Your task to perform on an android device: Go to eBay Image 0: 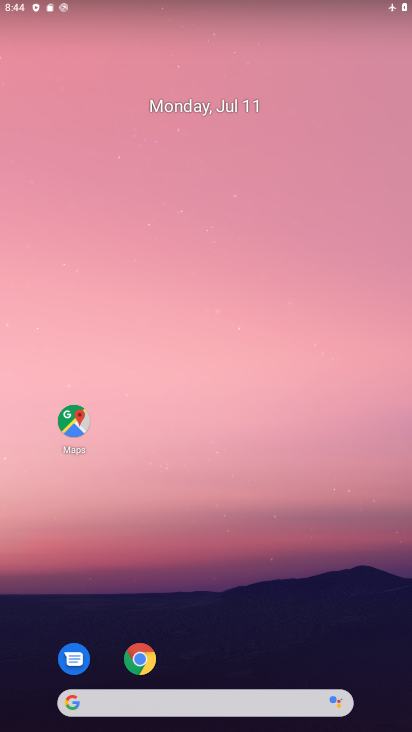
Step 0: click (143, 654)
Your task to perform on an android device: Go to eBay Image 1: 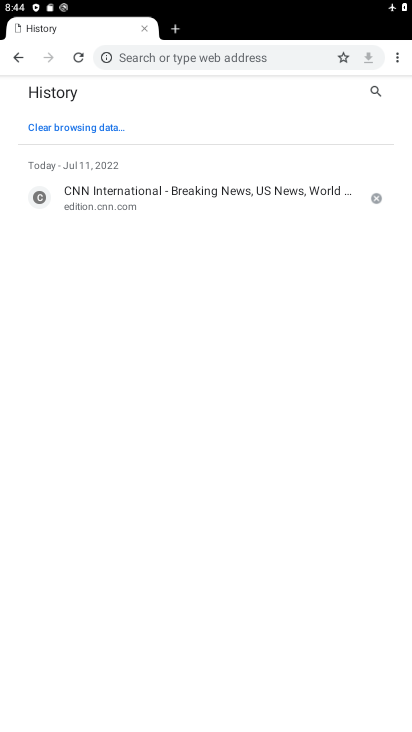
Step 1: click (178, 30)
Your task to perform on an android device: Go to eBay Image 2: 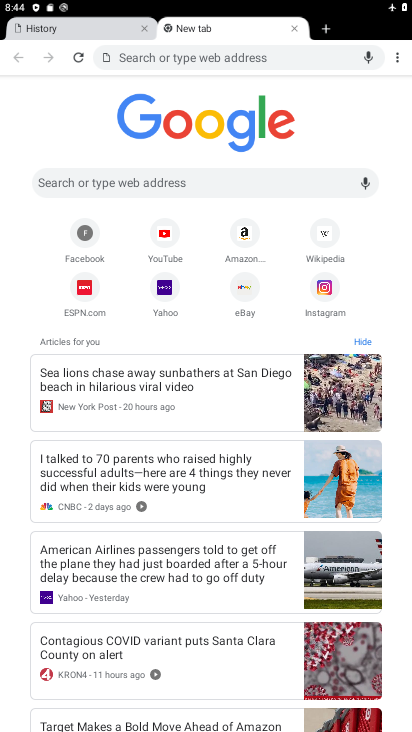
Step 2: click (242, 289)
Your task to perform on an android device: Go to eBay Image 3: 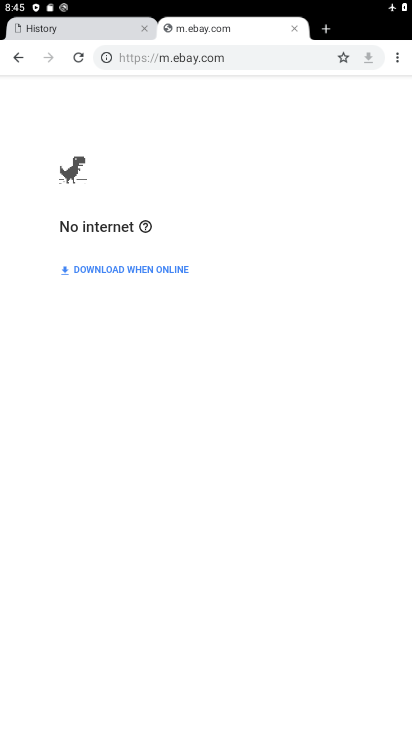
Step 3: task complete